Your task to perform on an android device: Go to notification settings Image 0: 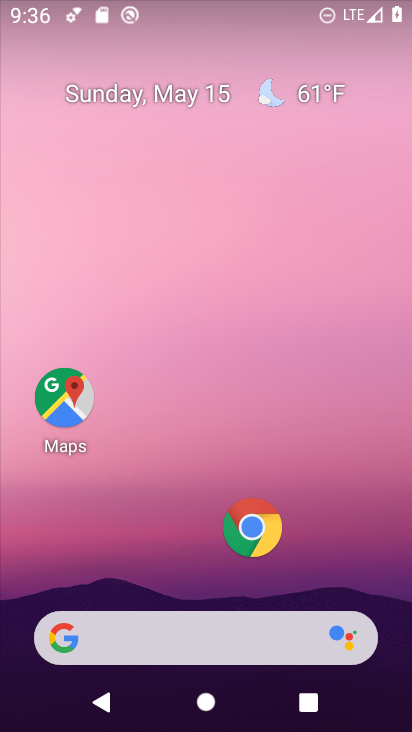
Step 0: drag from (199, 579) to (205, 62)
Your task to perform on an android device: Go to notification settings Image 1: 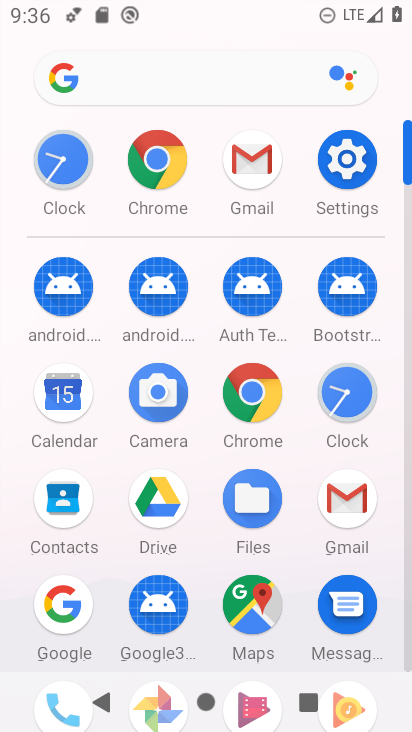
Step 1: click (341, 155)
Your task to perform on an android device: Go to notification settings Image 2: 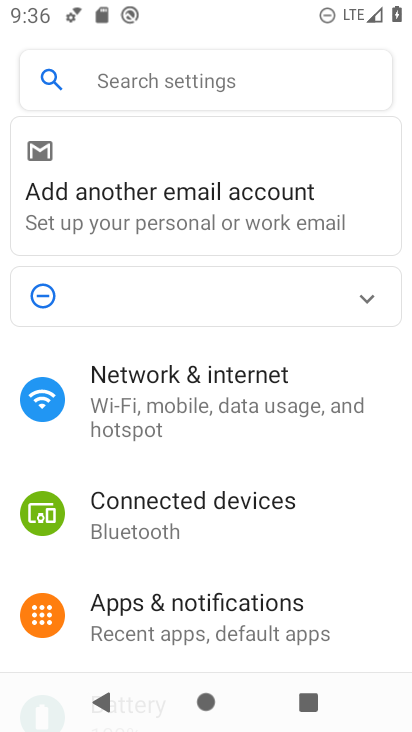
Step 2: click (223, 612)
Your task to perform on an android device: Go to notification settings Image 3: 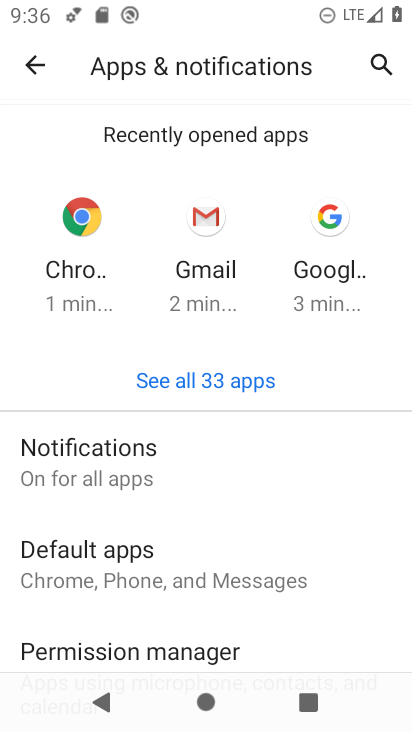
Step 3: click (172, 450)
Your task to perform on an android device: Go to notification settings Image 4: 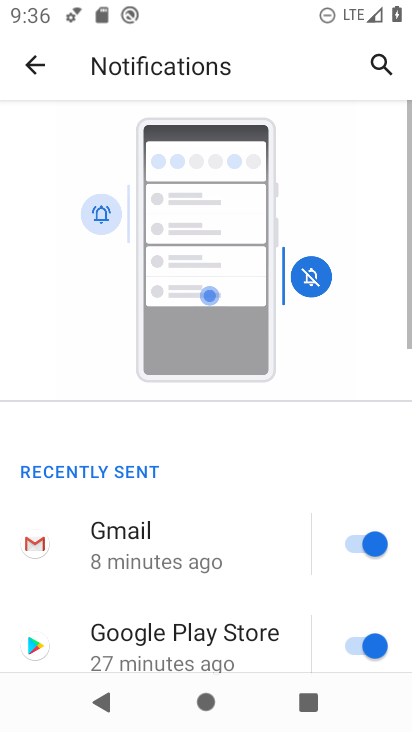
Step 4: drag from (242, 610) to (247, 68)
Your task to perform on an android device: Go to notification settings Image 5: 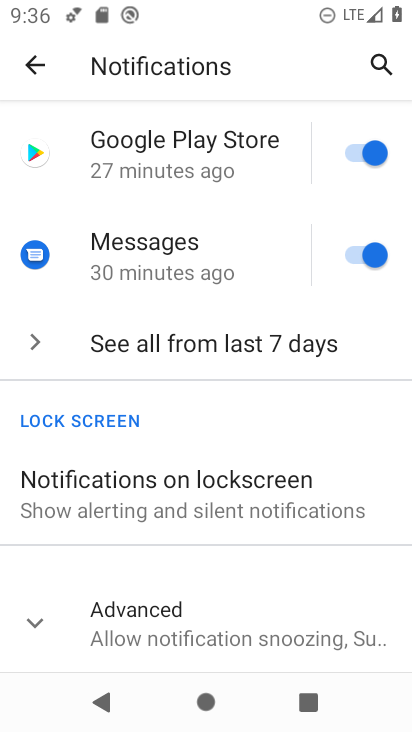
Step 5: drag from (222, 605) to (220, 226)
Your task to perform on an android device: Go to notification settings Image 6: 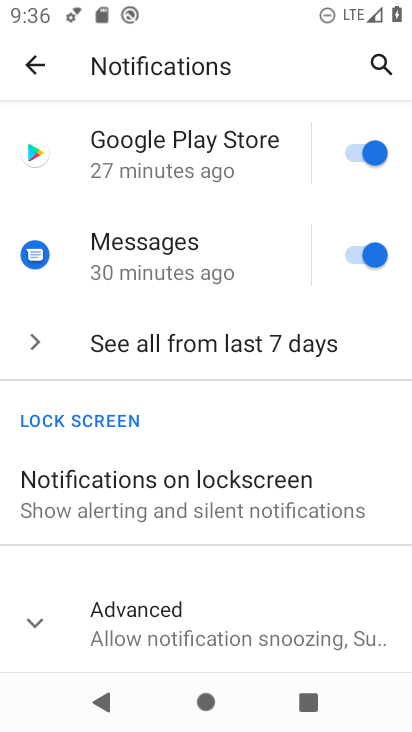
Step 6: click (45, 616)
Your task to perform on an android device: Go to notification settings Image 7: 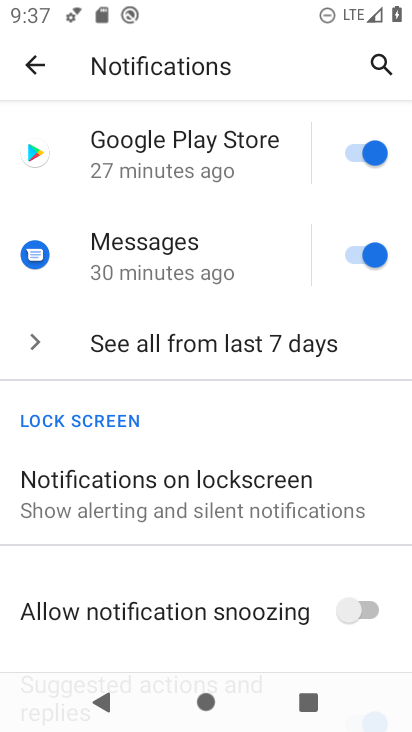
Step 7: task complete